Your task to perform on an android device: set the stopwatch Image 0: 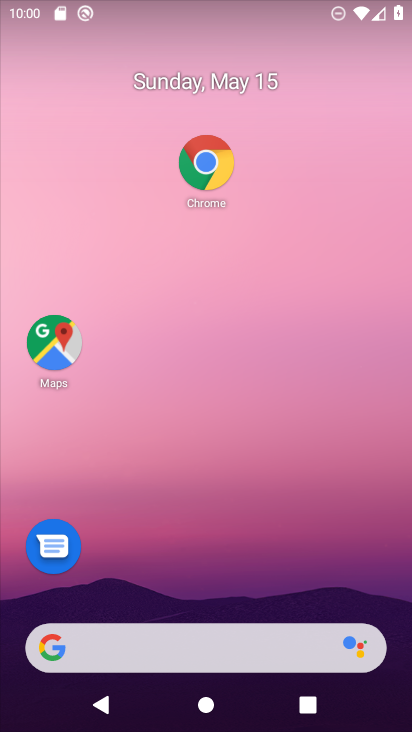
Step 0: drag from (254, 592) to (324, 165)
Your task to perform on an android device: set the stopwatch Image 1: 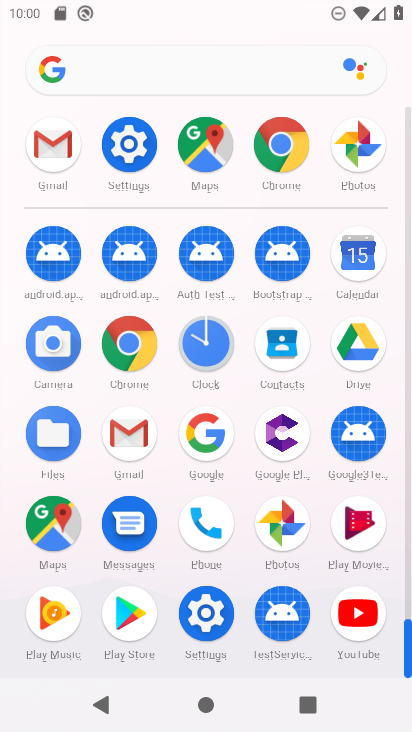
Step 1: click (196, 332)
Your task to perform on an android device: set the stopwatch Image 2: 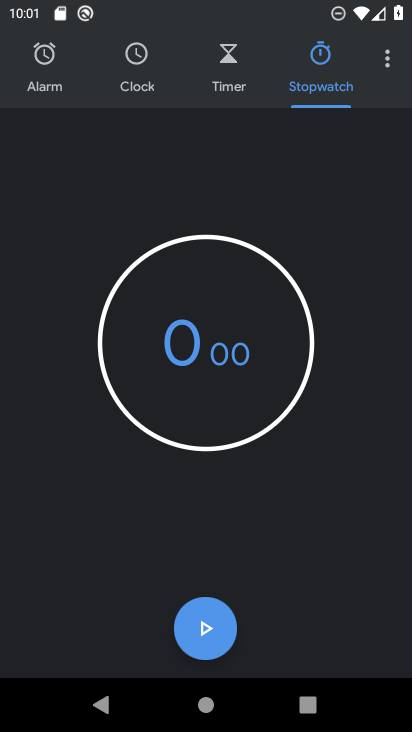
Step 2: task complete